Your task to perform on an android device: turn off improve location accuracy Image 0: 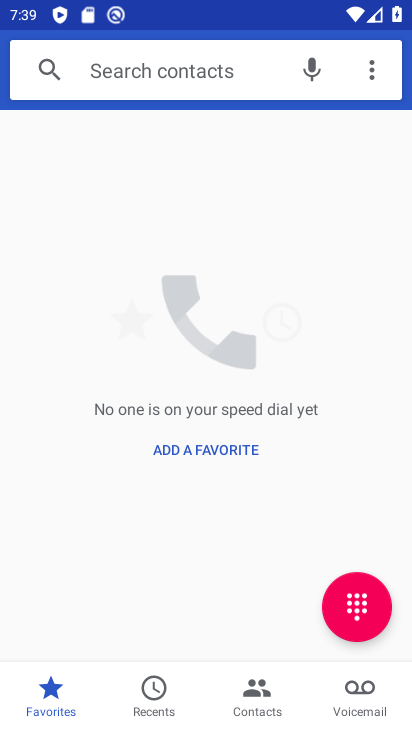
Step 0: press home button
Your task to perform on an android device: turn off improve location accuracy Image 1: 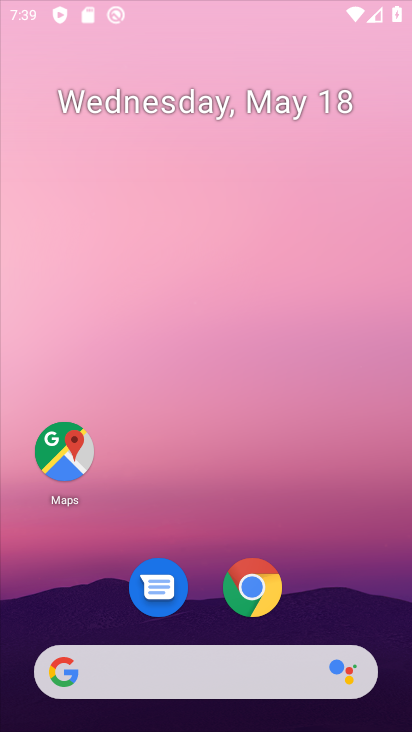
Step 1: drag from (204, 721) to (249, 286)
Your task to perform on an android device: turn off improve location accuracy Image 2: 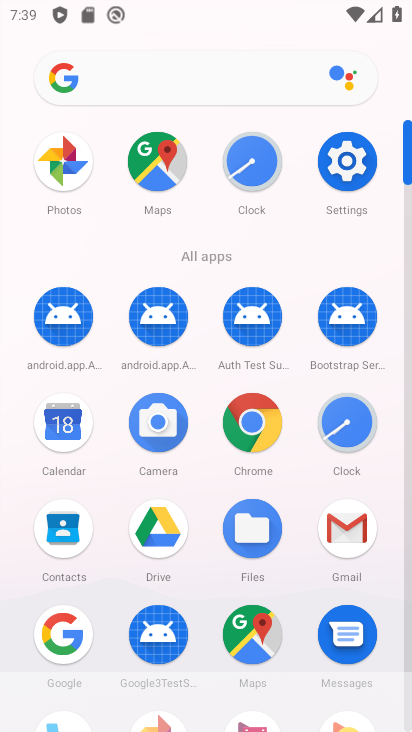
Step 2: click (361, 180)
Your task to perform on an android device: turn off improve location accuracy Image 3: 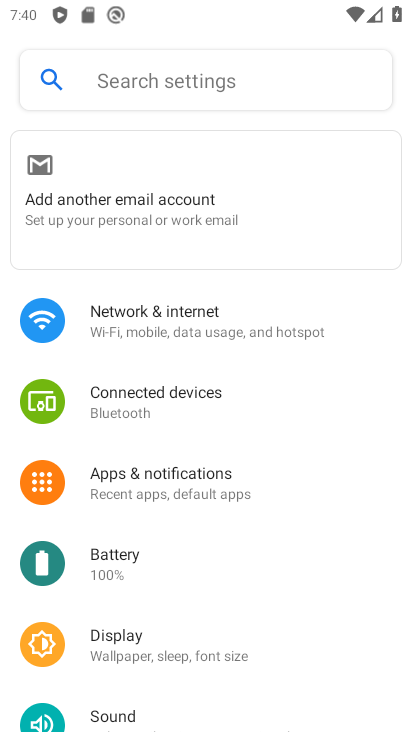
Step 3: drag from (228, 613) to (298, 309)
Your task to perform on an android device: turn off improve location accuracy Image 4: 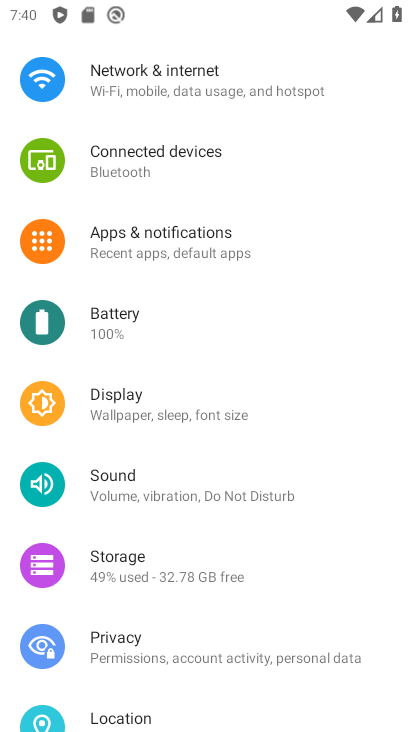
Step 4: drag from (196, 649) to (193, 425)
Your task to perform on an android device: turn off improve location accuracy Image 5: 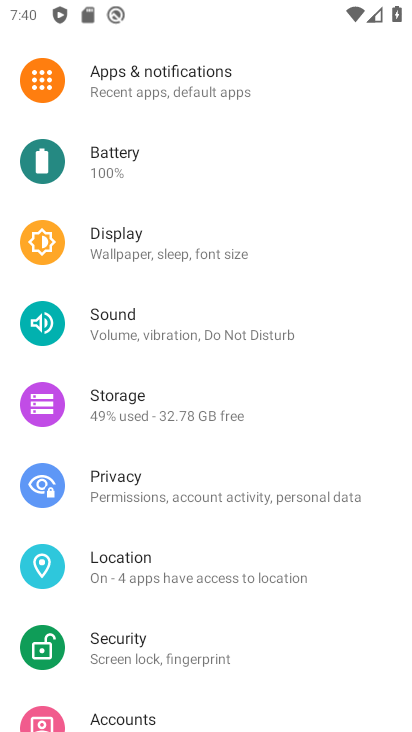
Step 5: click (174, 573)
Your task to perform on an android device: turn off improve location accuracy Image 6: 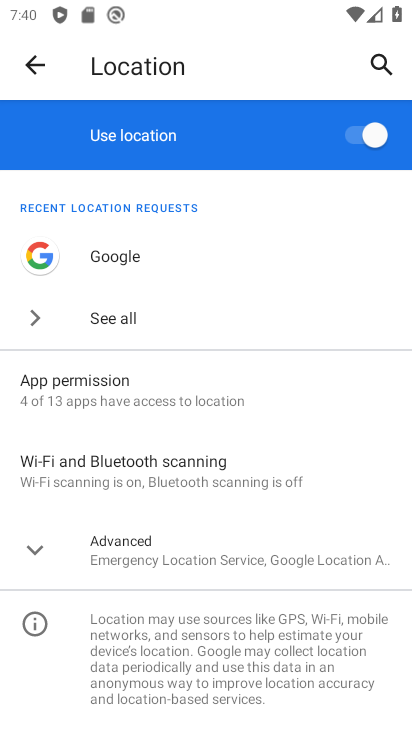
Step 6: click (211, 547)
Your task to perform on an android device: turn off improve location accuracy Image 7: 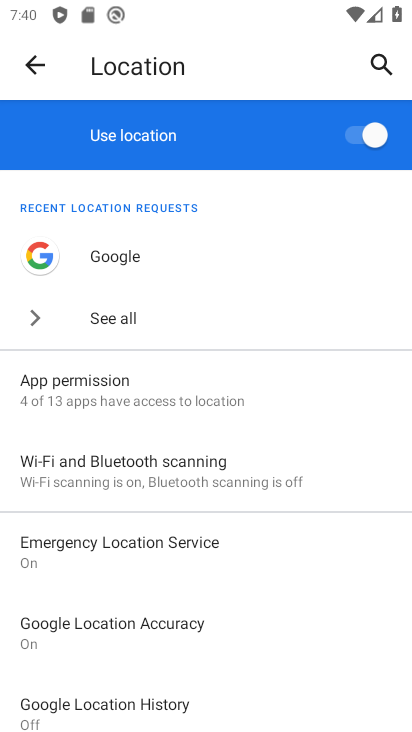
Step 7: click (188, 645)
Your task to perform on an android device: turn off improve location accuracy Image 8: 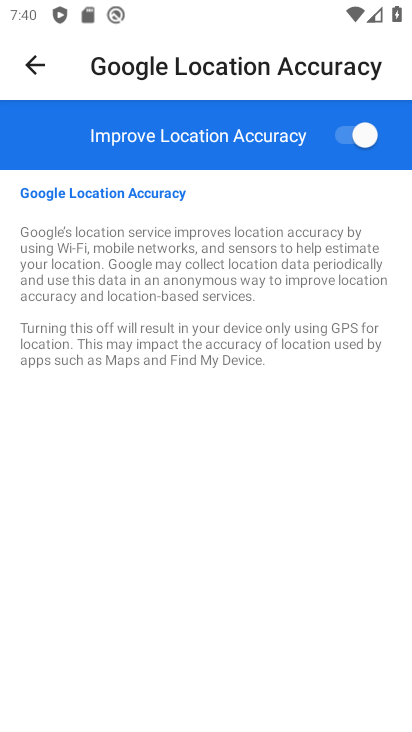
Step 8: click (345, 131)
Your task to perform on an android device: turn off improve location accuracy Image 9: 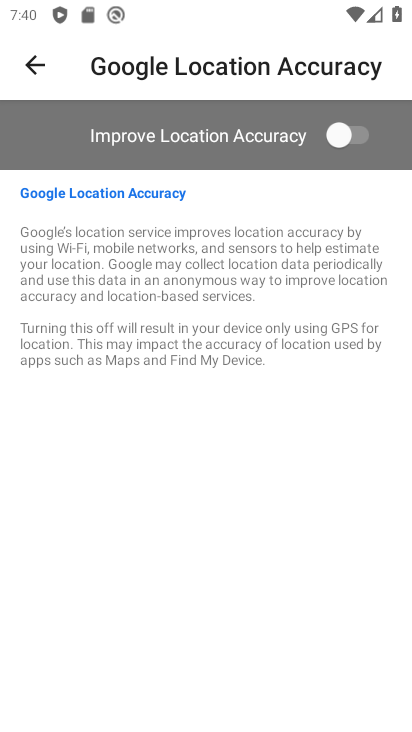
Step 9: task complete